Your task to perform on an android device: open device folders in google photos Image 0: 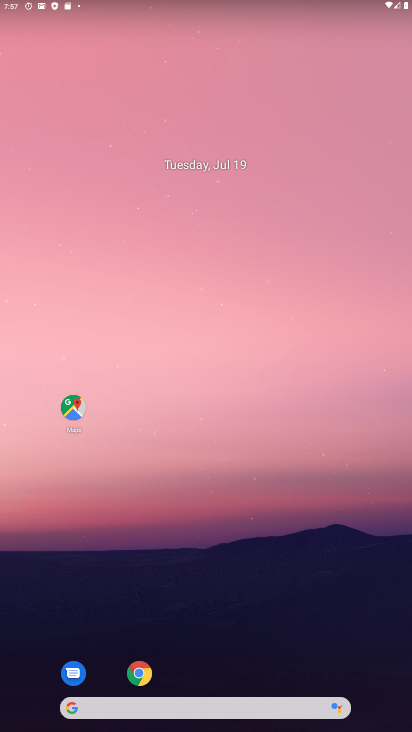
Step 0: drag from (207, 654) to (309, 166)
Your task to perform on an android device: open device folders in google photos Image 1: 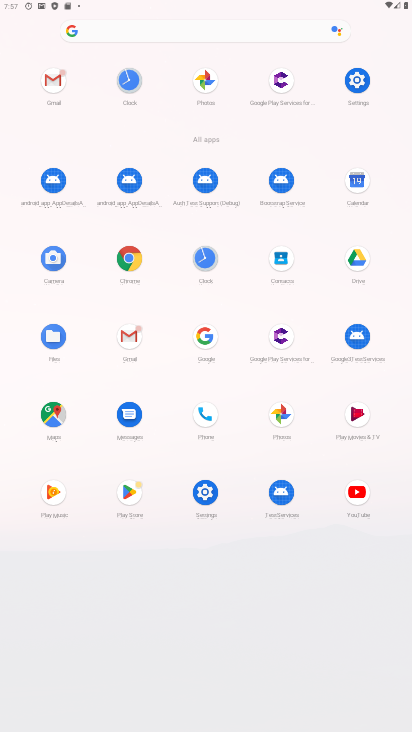
Step 1: click (291, 408)
Your task to perform on an android device: open device folders in google photos Image 2: 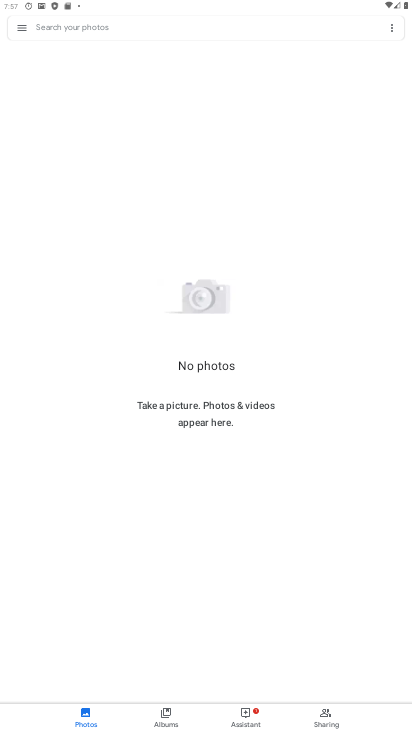
Step 2: click (23, 27)
Your task to perform on an android device: open device folders in google photos Image 3: 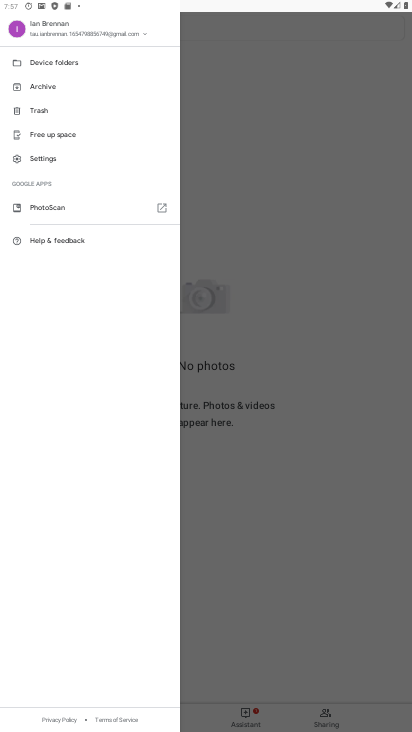
Step 3: click (134, 63)
Your task to perform on an android device: open device folders in google photos Image 4: 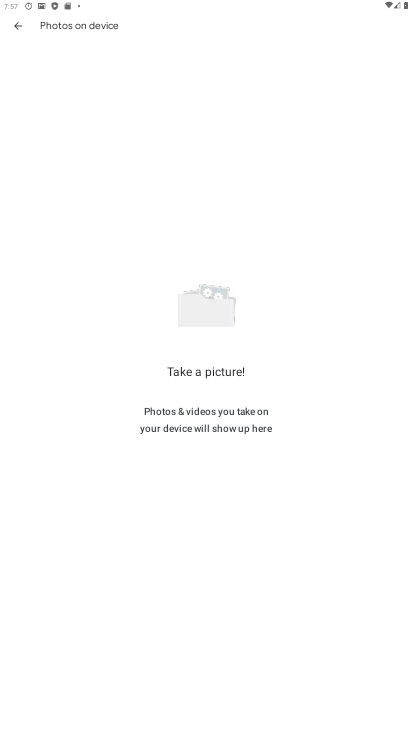
Step 4: task complete